Your task to perform on an android device: turn off improve location accuracy Image 0: 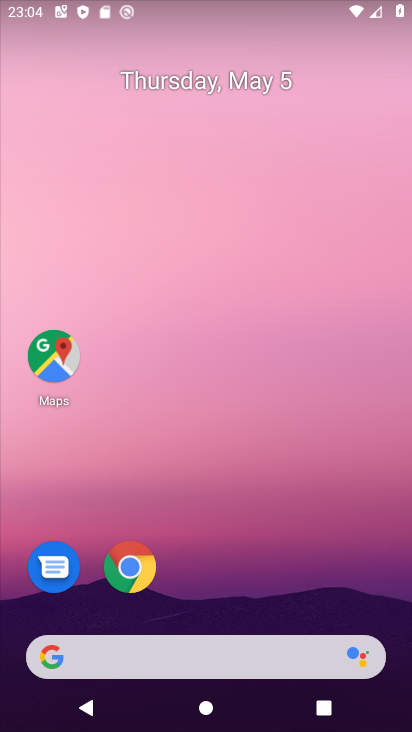
Step 0: drag from (187, 602) to (188, 234)
Your task to perform on an android device: turn off improve location accuracy Image 1: 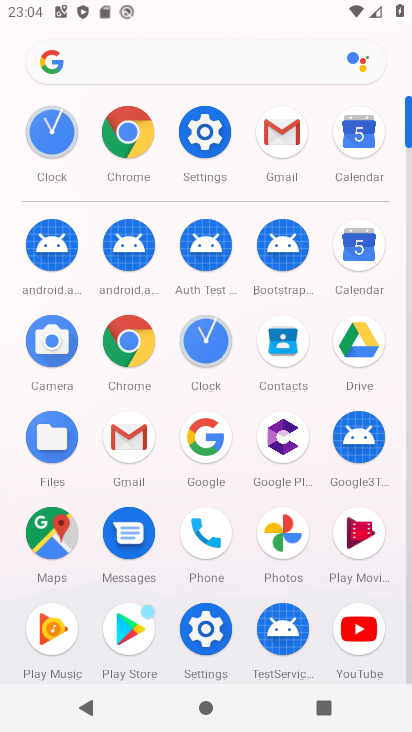
Step 1: click (200, 140)
Your task to perform on an android device: turn off improve location accuracy Image 2: 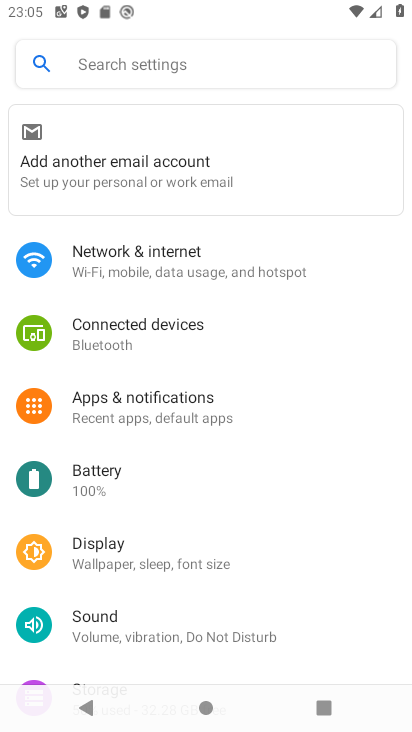
Step 2: drag from (221, 613) to (247, 311)
Your task to perform on an android device: turn off improve location accuracy Image 3: 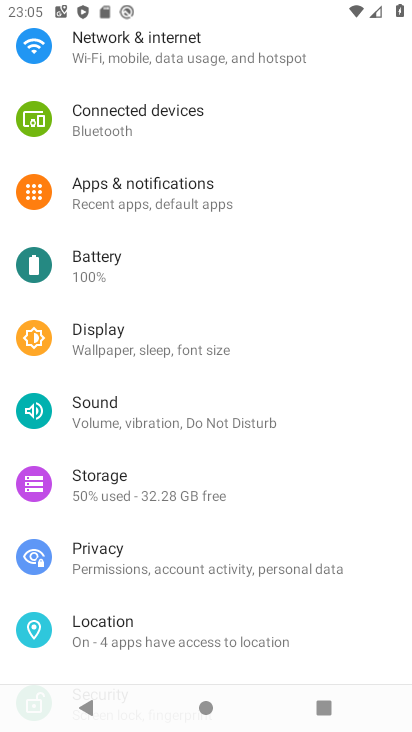
Step 3: click (198, 630)
Your task to perform on an android device: turn off improve location accuracy Image 4: 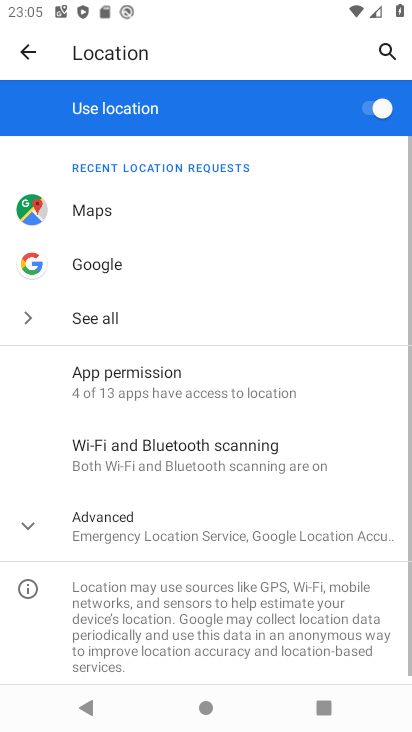
Step 4: drag from (175, 617) to (165, 353)
Your task to perform on an android device: turn off improve location accuracy Image 5: 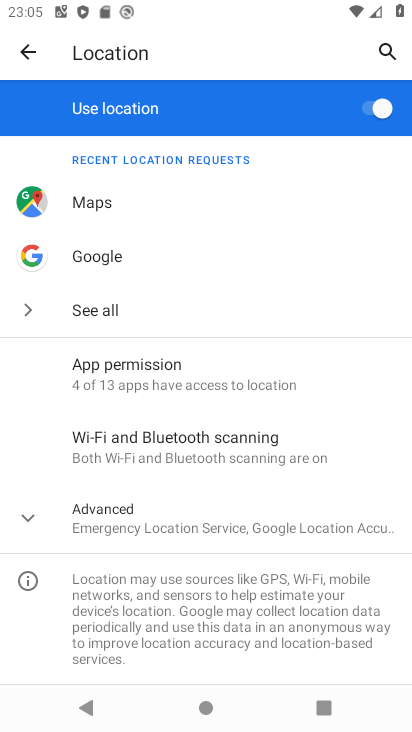
Step 5: click (148, 500)
Your task to perform on an android device: turn off improve location accuracy Image 6: 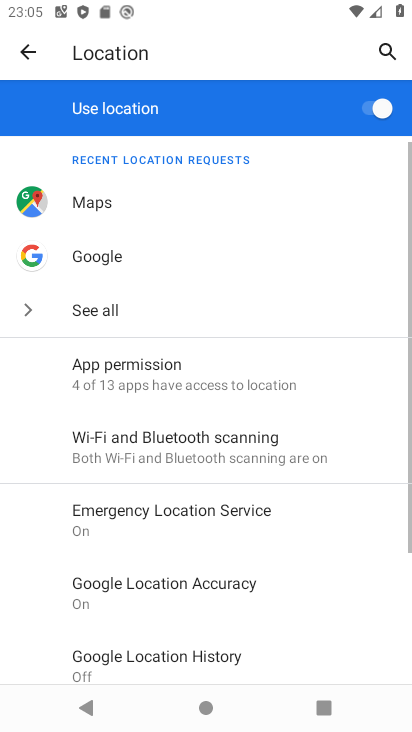
Step 6: click (174, 591)
Your task to perform on an android device: turn off improve location accuracy Image 7: 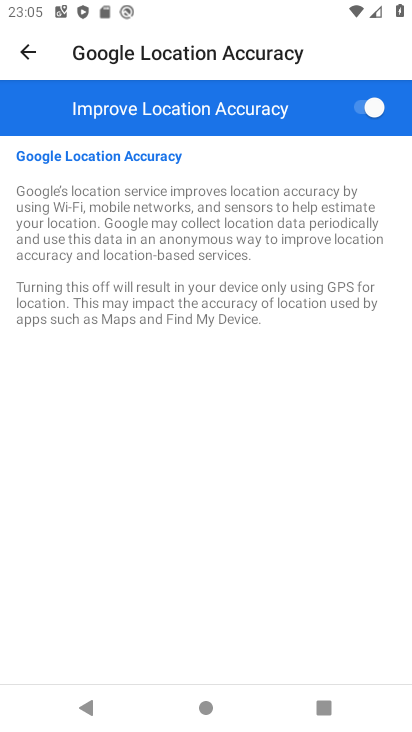
Step 7: click (350, 109)
Your task to perform on an android device: turn off improve location accuracy Image 8: 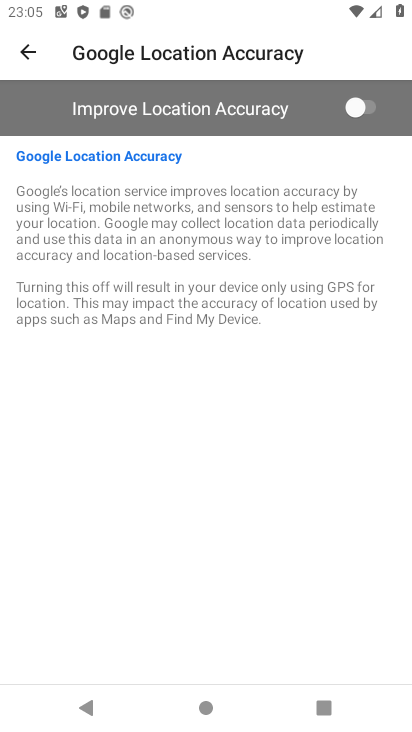
Step 8: task complete